Your task to perform on an android device: Open calendar and show me the second week of next month Image 0: 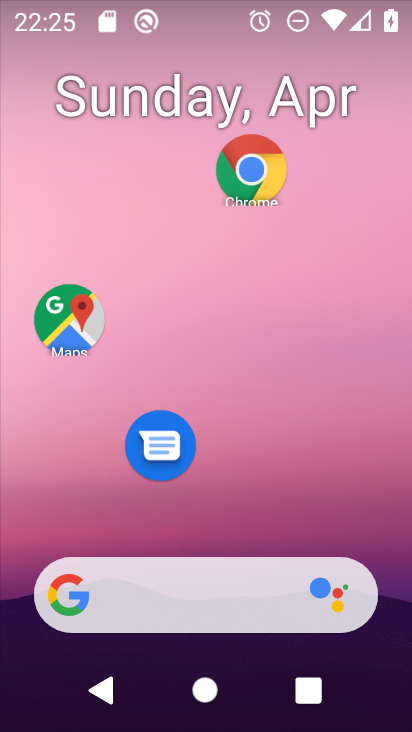
Step 0: drag from (234, 458) to (288, 87)
Your task to perform on an android device: Open calendar and show me the second week of next month Image 1: 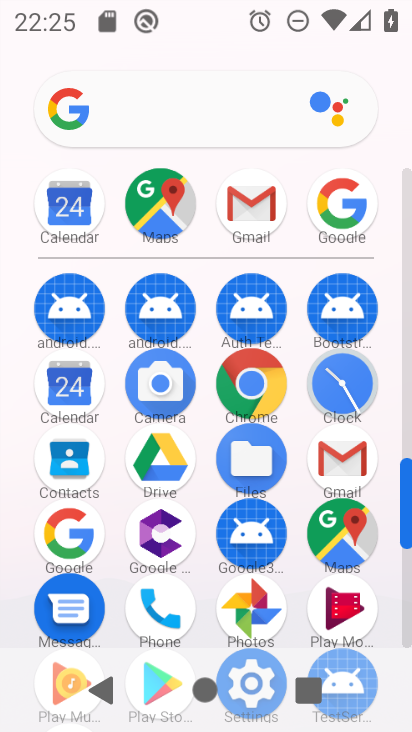
Step 1: click (73, 378)
Your task to perform on an android device: Open calendar and show me the second week of next month Image 2: 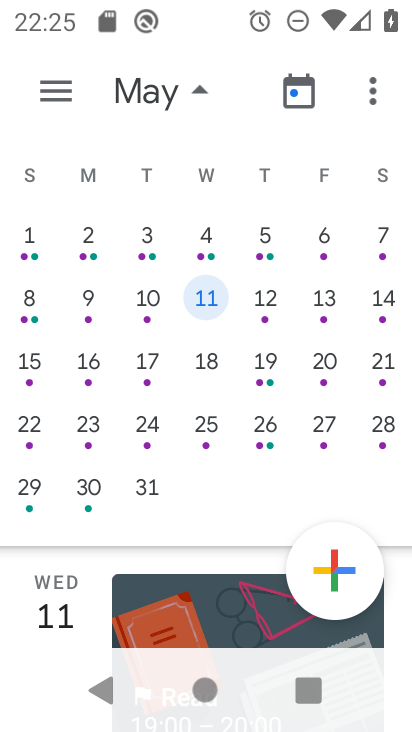
Step 2: click (145, 294)
Your task to perform on an android device: Open calendar and show me the second week of next month Image 3: 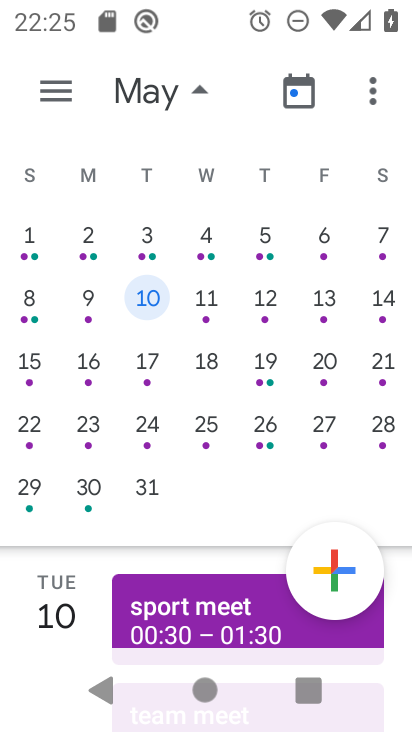
Step 3: task complete